Your task to perform on an android device: check data usage Image 0: 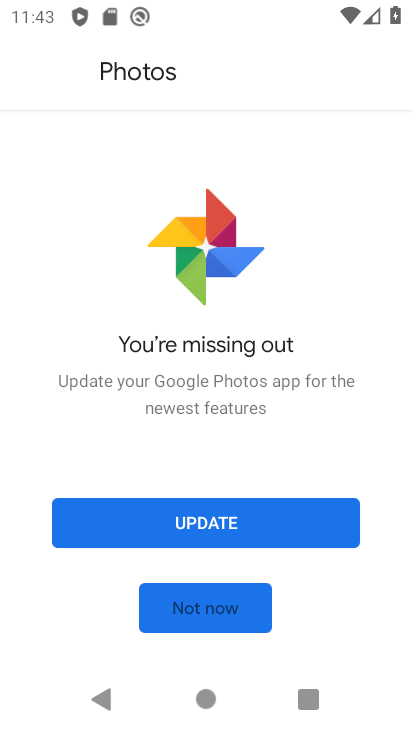
Step 0: press home button
Your task to perform on an android device: check data usage Image 1: 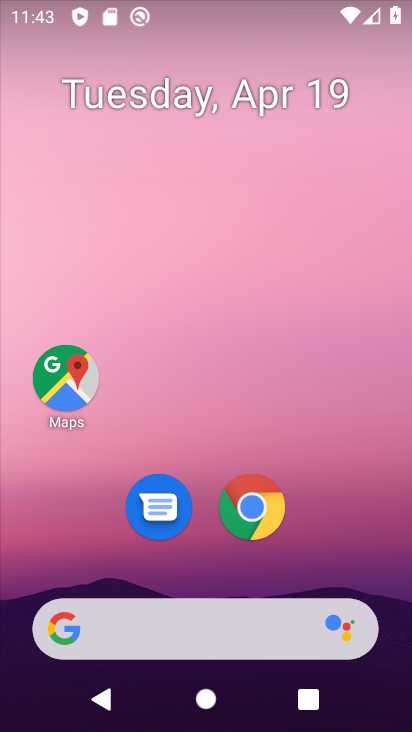
Step 1: drag from (373, 551) to (355, 154)
Your task to perform on an android device: check data usage Image 2: 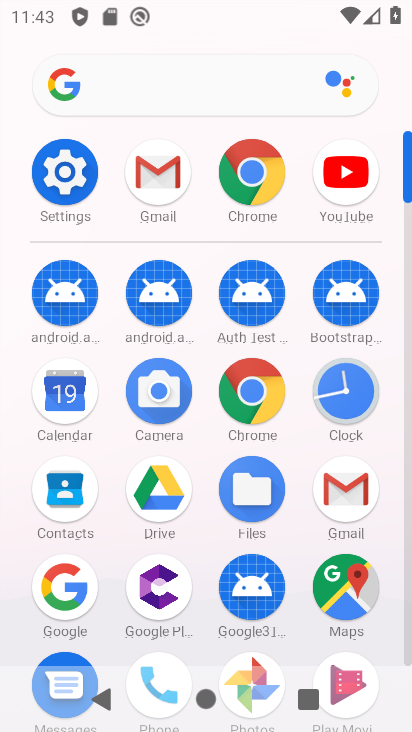
Step 2: click (85, 167)
Your task to perform on an android device: check data usage Image 3: 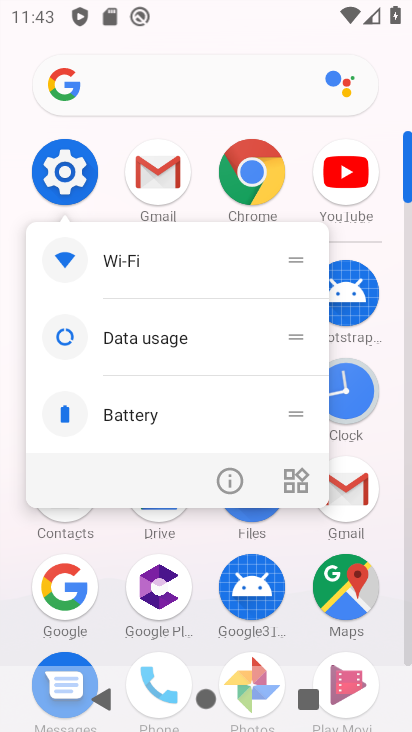
Step 3: click (85, 171)
Your task to perform on an android device: check data usage Image 4: 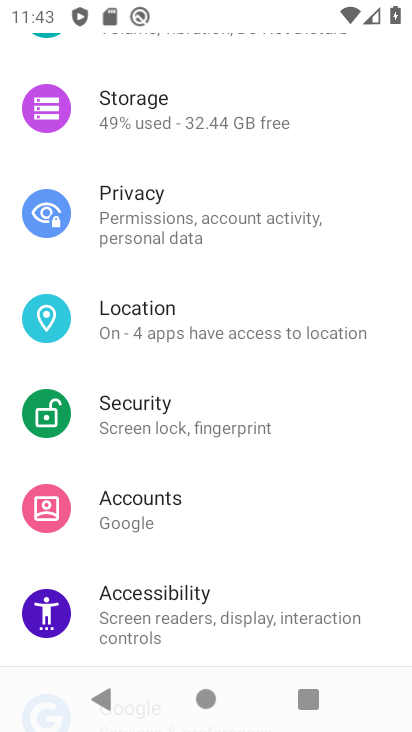
Step 4: drag from (295, 197) to (324, 524)
Your task to perform on an android device: check data usage Image 5: 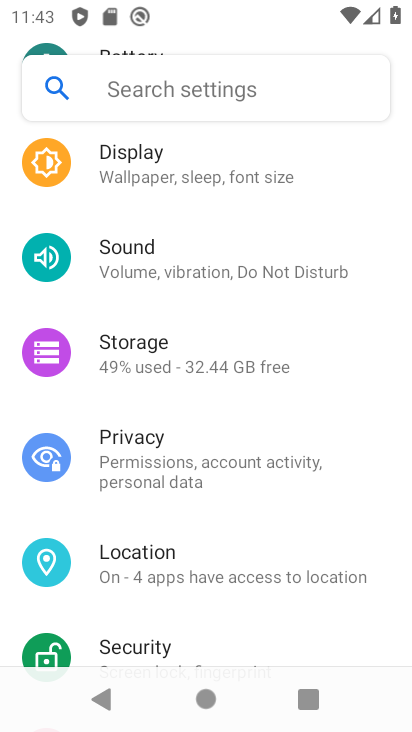
Step 5: drag from (316, 226) to (316, 493)
Your task to perform on an android device: check data usage Image 6: 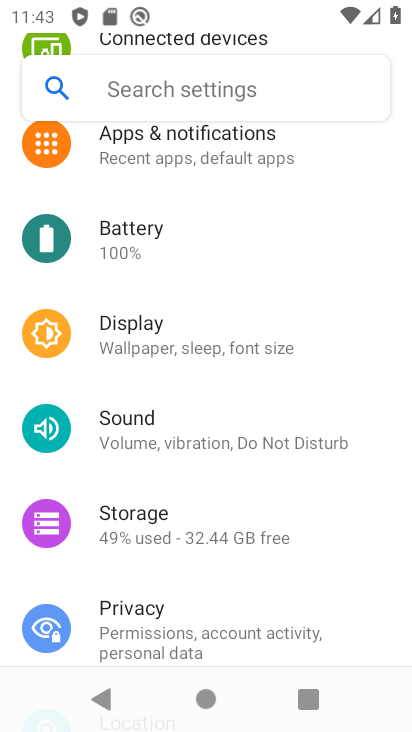
Step 6: drag from (270, 243) to (278, 531)
Your task to perform on an android device: check data usage Image 7: 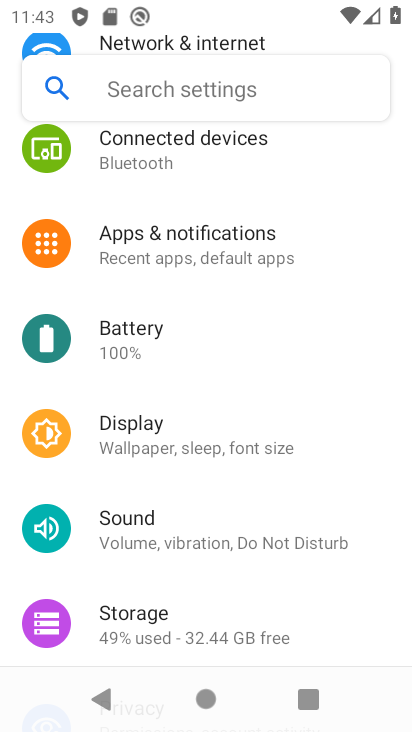
Step 7: drag from (275, 235) to (309, 535)
Your task to perform on an android device: check data usage Image 8: 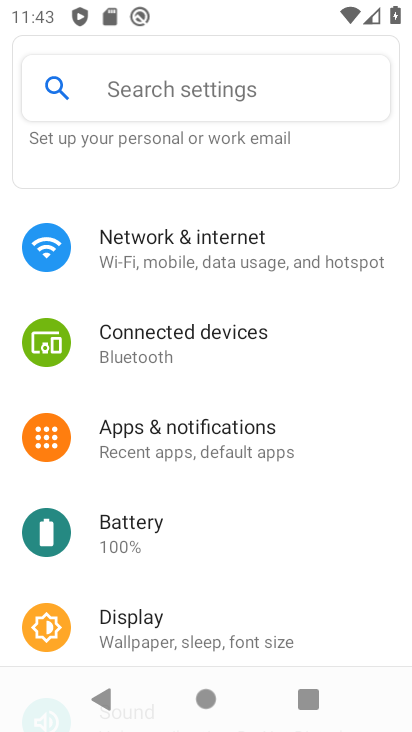
Step 8: click (204, 265)
Your task to perform on an android device: check data usage Image 9: 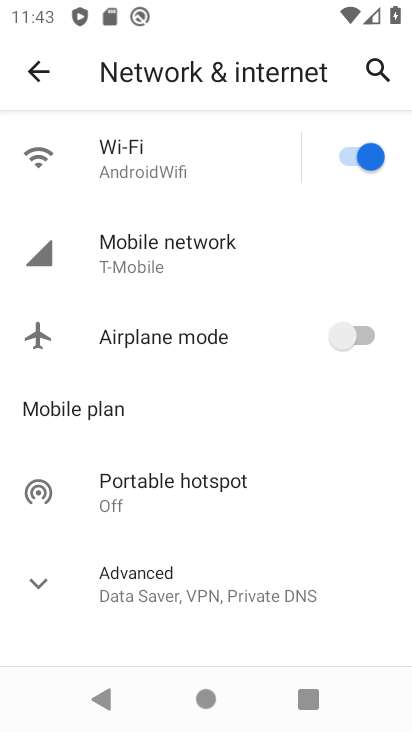
Step 9: click (198, 257)
Your task to perform on an android device: check data usage Image 10: 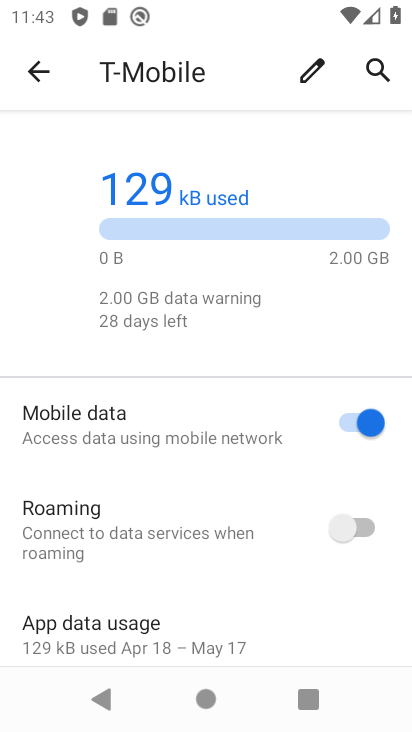
Step 10: drag from (166, 576) to (166, 255)
Your task to perform on an android device: check data usage Image 11: 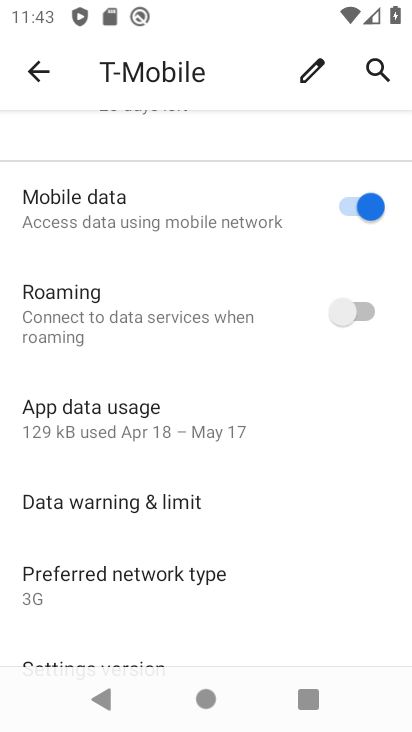
Step 11: click (132, 431)
Your task to perform on an android device: check data usage Image 12: 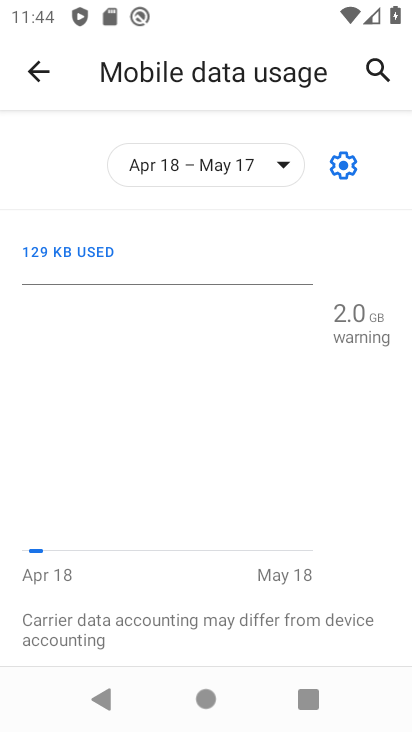
Step 12: task complete